Your task to perform on an android device: turn off priority inbox in the gmail app Image 0: 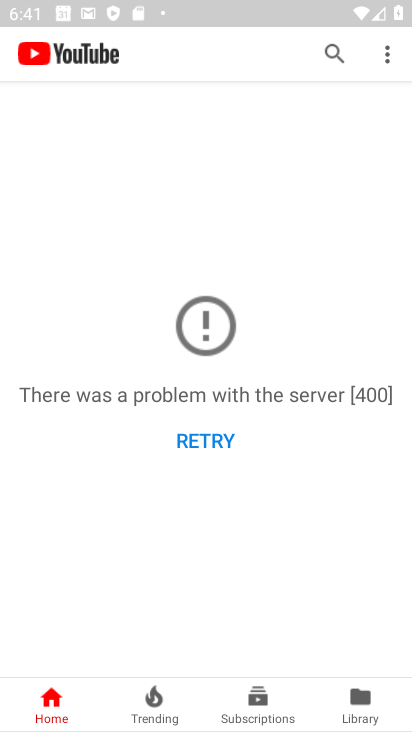
Step 0: press home button
Your task to perform on an android device: turn off priority inbox in the gmail app Image 1: 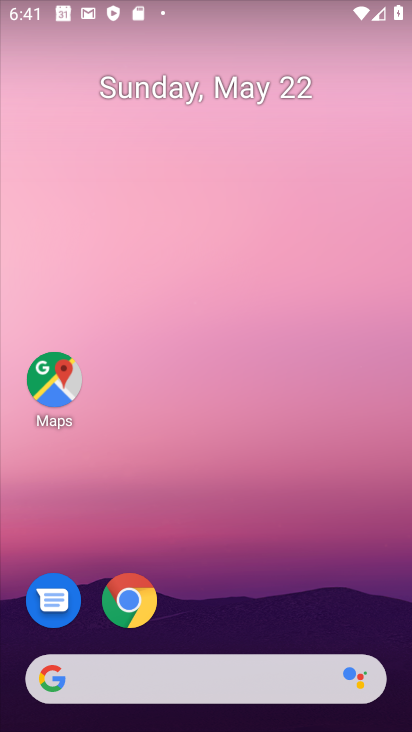
Step 1: drag from (340, 625) to (286, 109)
Your task to perform on an android device: turn off priority inbox in the gmail app Image 2: 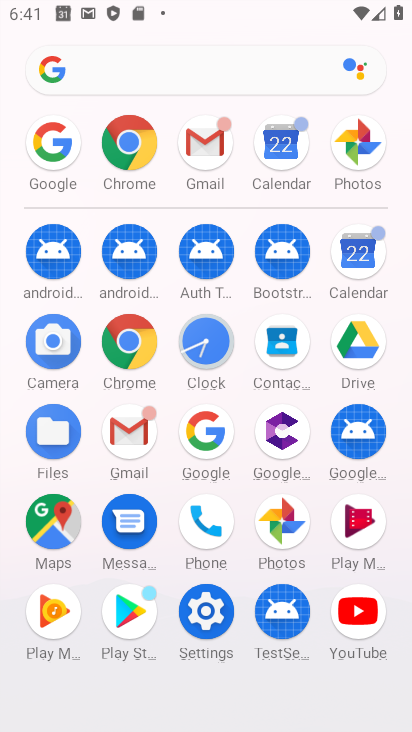
Step 2: click (129, 431)
Your task to perform on an android device: turn off priority inbox in the gmail app Image 3: 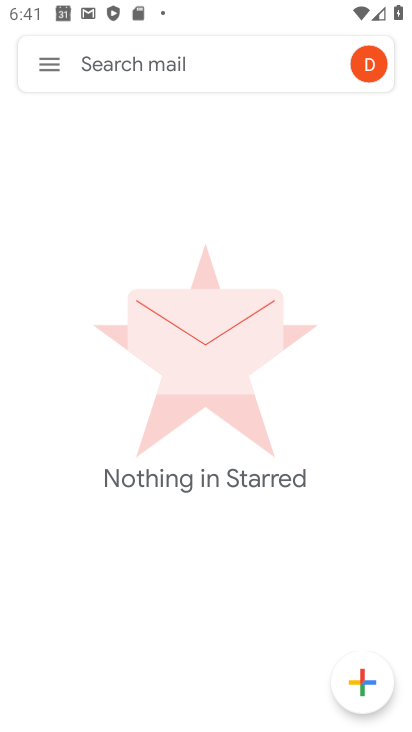
Step 3: click (52, 78)
Your task to perform on an android device: turn off priority inbox in the gmail app Image 4: 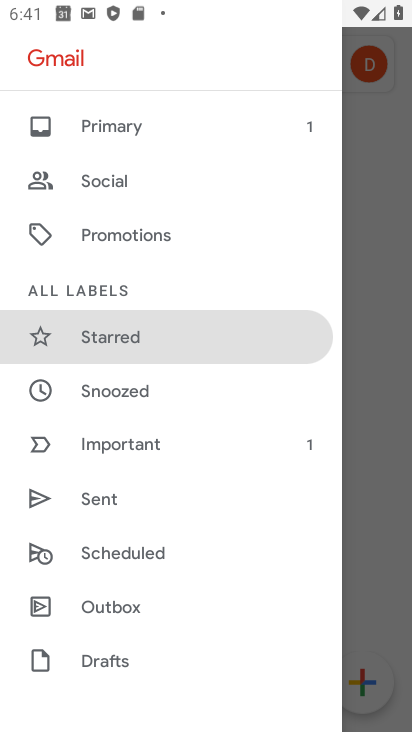
Step 4: drag from (93, 634) to (115, 75)
Your task to perform on an android device: turn off priority inbox in the gmail app Image 5: 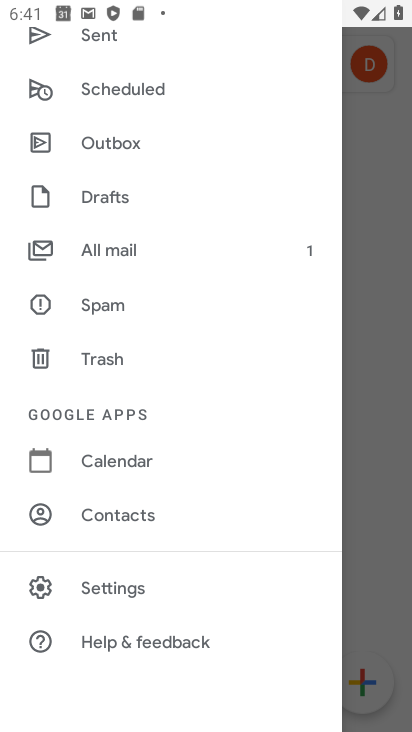
Step 5: click (147, 598)
Your task to perform on an android device: turn off priority inbox in the gmail app Image 6: 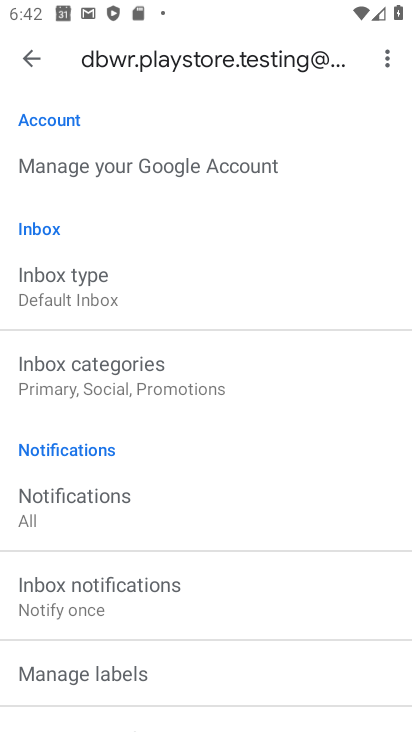
Step 6: click (175, 319)
Your task to perform on an android device: turn off priority inbox in the gmail app Image 7: 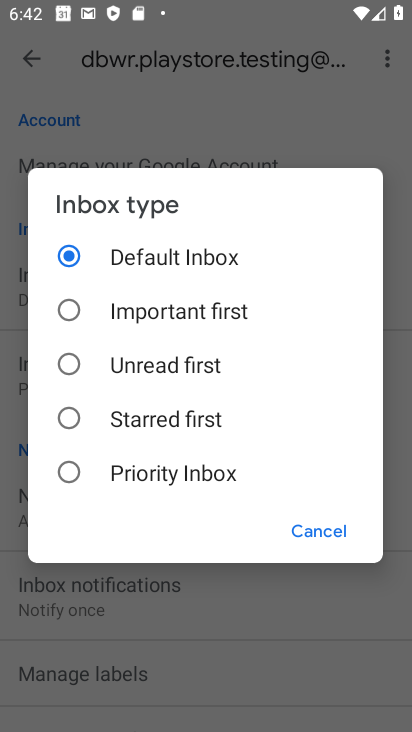
Step 7: task complete